Your task to perform on an android device: toggle javascript in the chrome app Image 0: 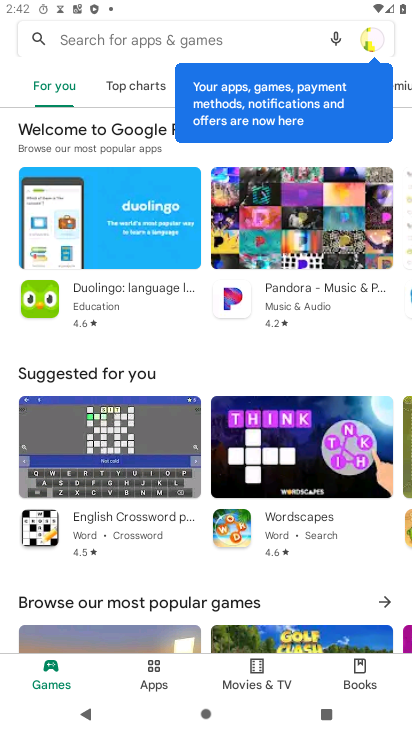
Step 0: press home button
Your task to perform on an android device: toggle javascript in the chrome app Image 1: 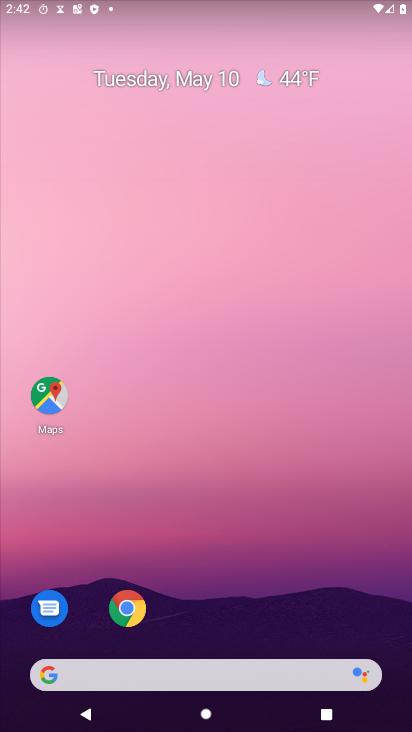
Step 1: click (130, 614)
Your task to perform on an android device: toggle javascript in the chrome app Image 2: 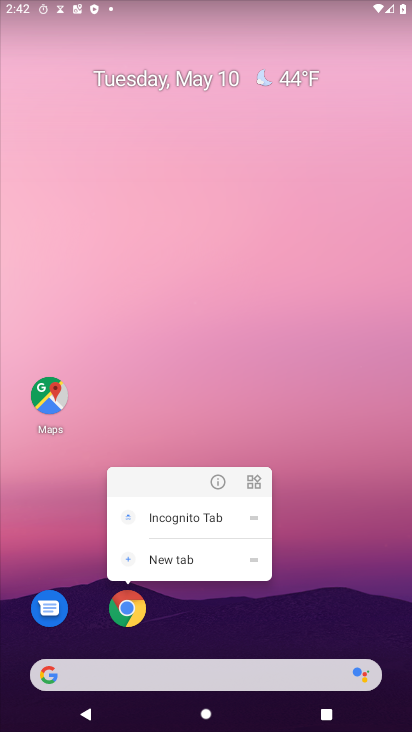
Step 2: click (130, 608)
Your task to perform on an android device: toggle javascript in the chrome app Image 3: 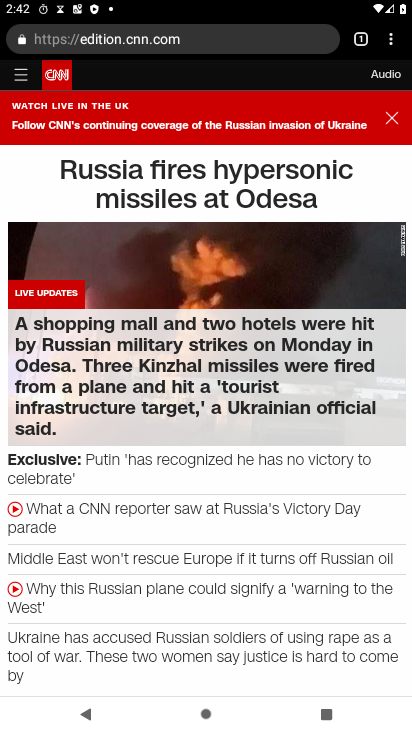
Step 3: drag from (390, 42) to (258, 434)
Your task to perform on an android device: toggle javascript in the chrome app Image 4: 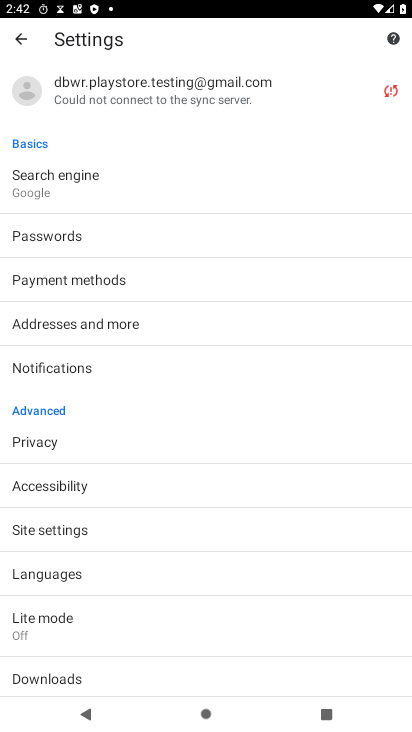
Step 4: click (64, 536)
Your task to perform on an android device: toggle javascript in the chrome app Image 5: 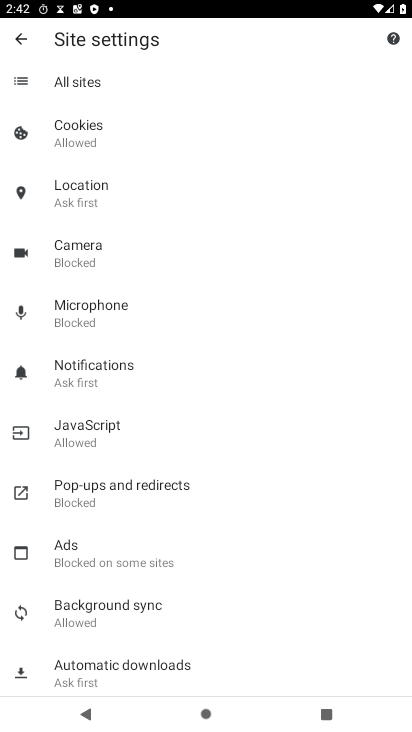
Step 5: click (69, 431)
Your task to perform on an android device: toggle javascript in the chrome app Image 6: 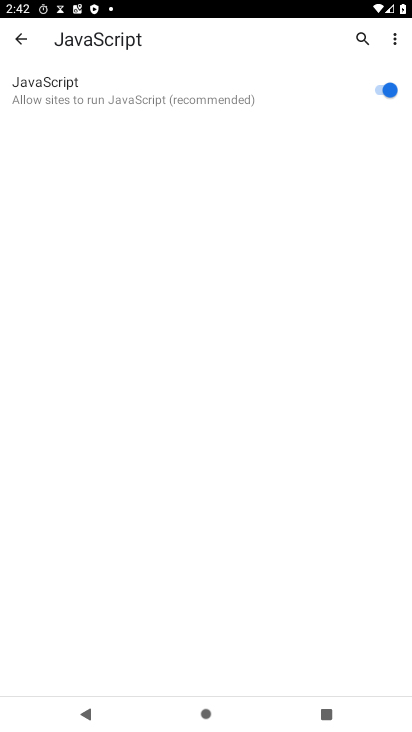
Step 6: click (390, 84)
Your task to perform on an android device: toggle javascript in the chrome app Image 7: 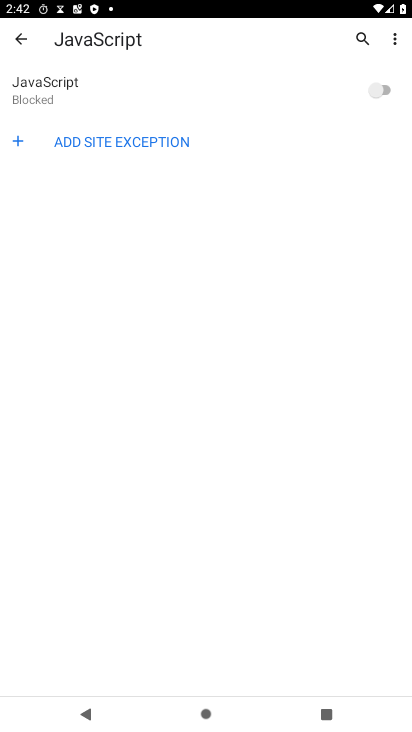
Step 7: task complete